Your task to perform on an android device: create a new album in the google photos Image 0: 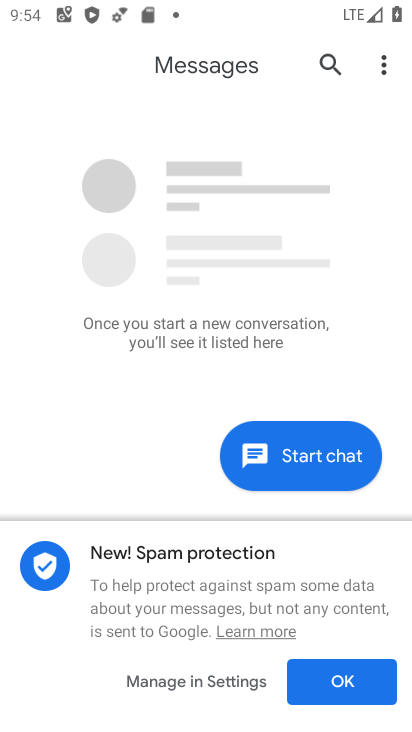
Step 0: press home button
Your task to perform on an android device: create a new album in the google photos Image 1: 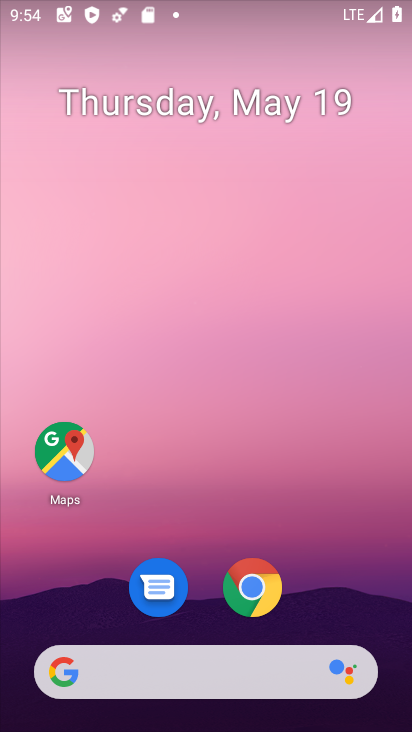
Step 1: drag from (203, 606) to (237, 12)
Your task to perform on an android device: create a new album in the google photos Image 2: 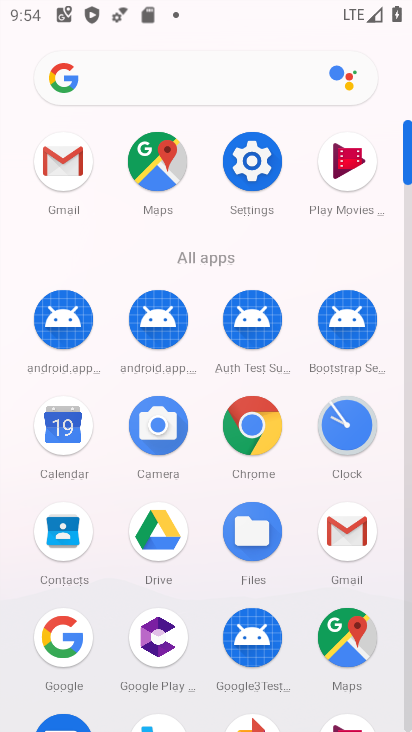
Step 2: drag from (204, 614) to (213, 119)
Your task to perform on an android device: create a new album in the google photos Image 3: 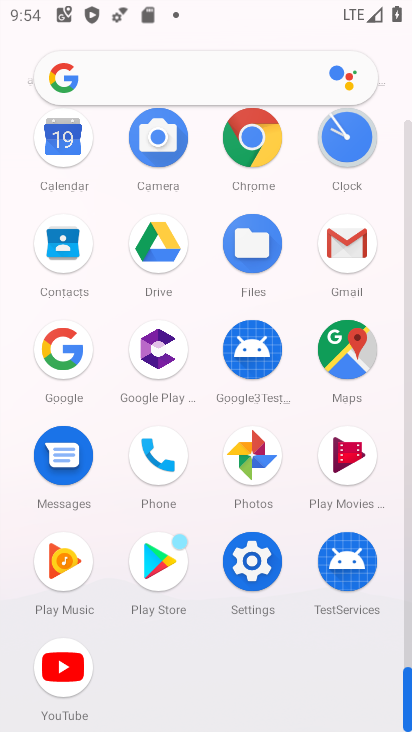
Step 3: click (247, 450)
Your task to perform on an android device: create a new album in the google photos Image 4: 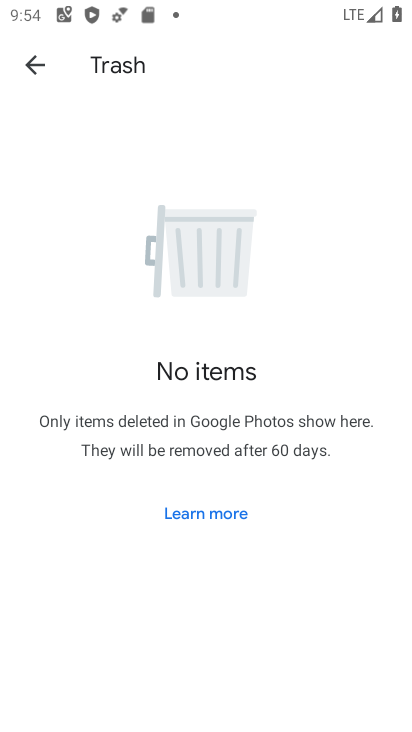
Step 4: click (43, 78)
Your task to perform on an android device: create a new album in the google photos Image 5: 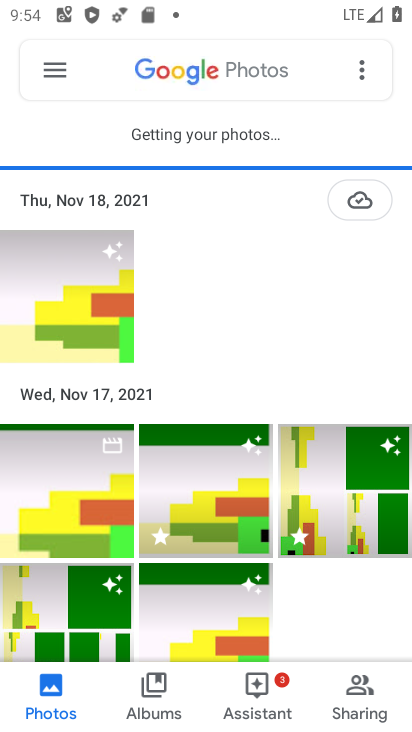
Step 5: click (82, 466)
Your task to perform on an android device: create a new album in the google photos Image 6: 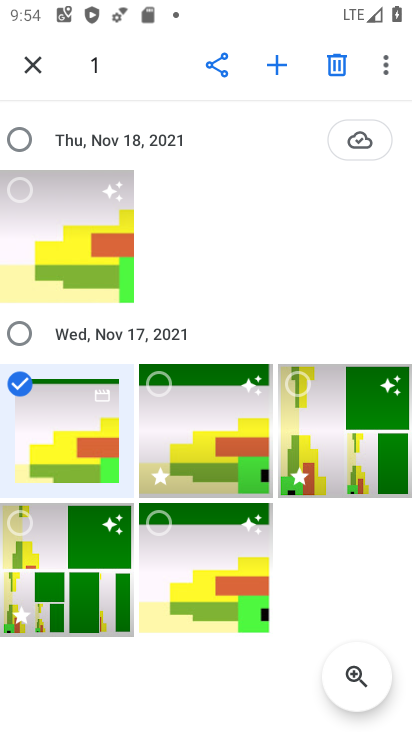
Step 6: click (164, 383)
Your task to perform on an android device: create a new album in the google photos Image 7: 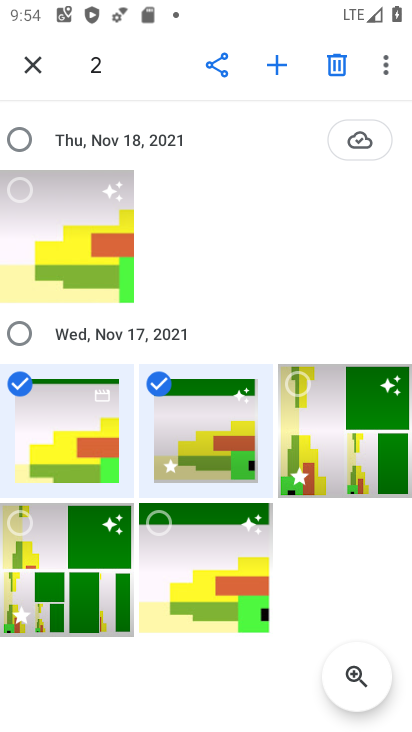
Step 7: click (274, 53)
Your task to perform on an android device: create a new album in the google photos Image 8: 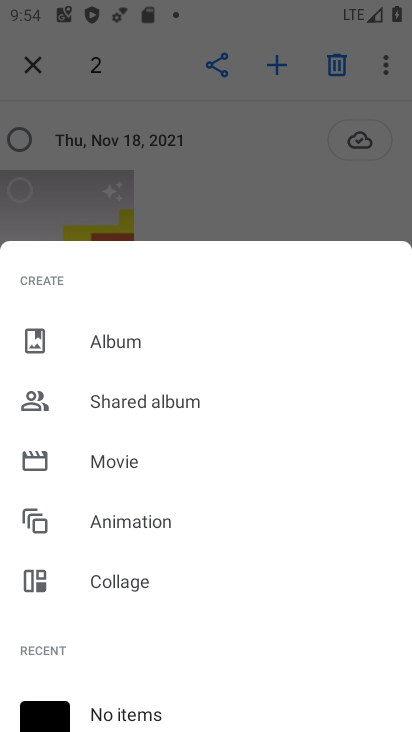
Step 8: click (149, 330)
Your task to perform on an android device: create a new album in the google photos Image 9: 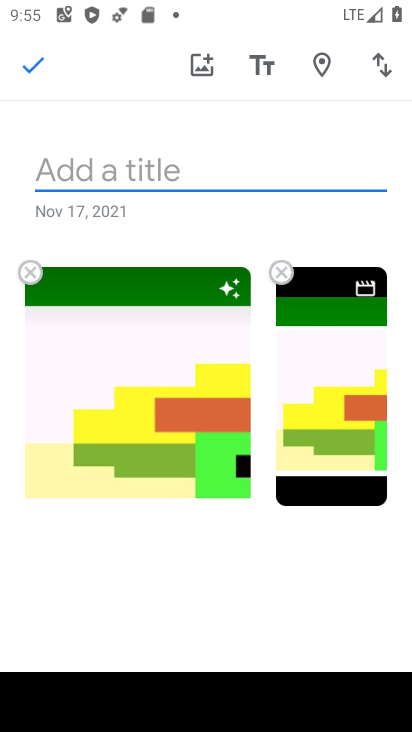
Step 9: type "tumtum"
Your task to perform on an android device: create a new album in the google photos Image 10: 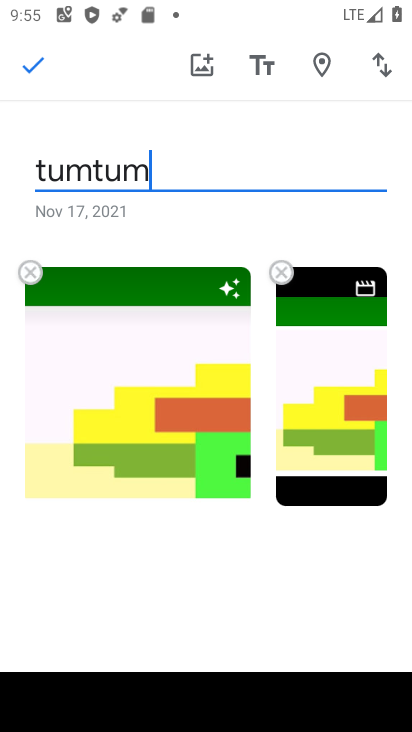
Step 10: click (39, 69)
Your task to perform on an android device: create a new album in the google photos Image 11: 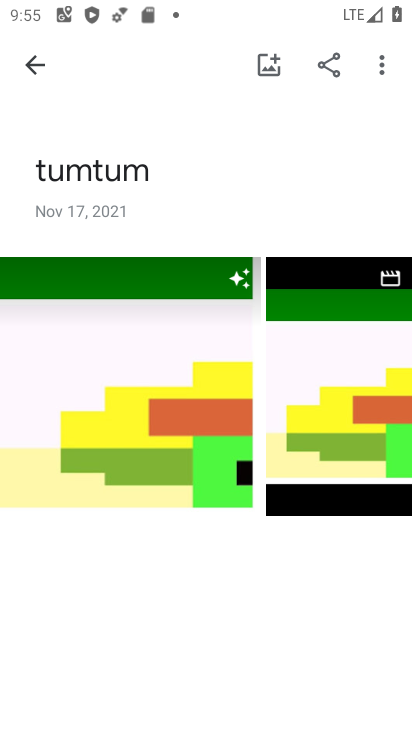
Step 11: task complete